Your task to perform on an android device: delete browsing data in the chrome app Image 0: 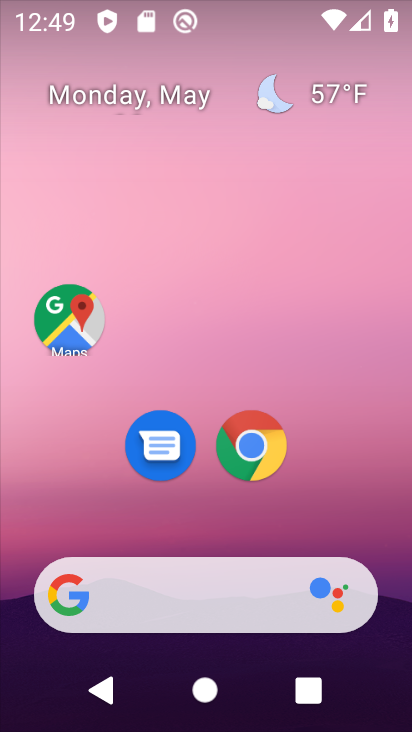
Step 0: drag from (398, 615) to (310, 145)
Your task to perform on an android device: delete browsing data in the chrome app Image 1: 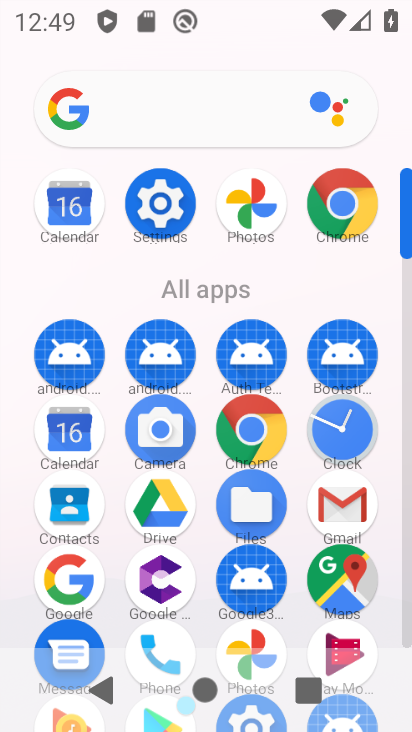
Step 1: click (270, 429)
Your task to perform on an android device: delete browsing data in the chrome app Image 2: 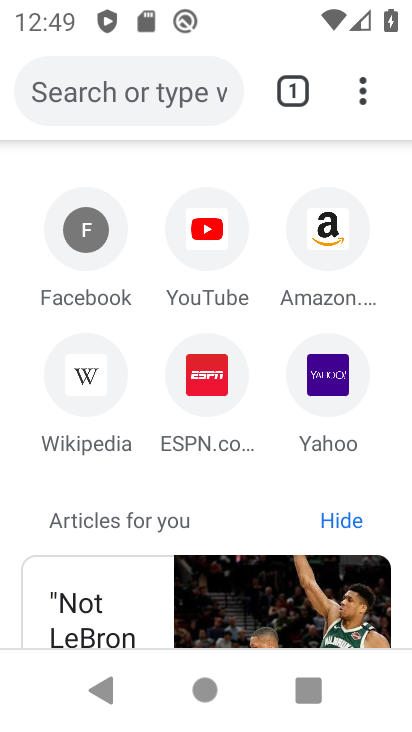
Step 2: click (366, 95)
Your task to perform on an android device: delete browsing data in the chrome app Image 3: 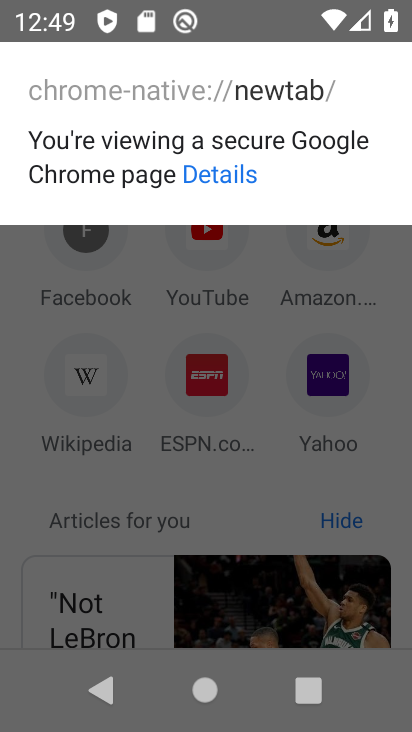
Step 3: click (355, 321)
Your task to perform on an android device: delete browsing data in the chrome app Image 4: 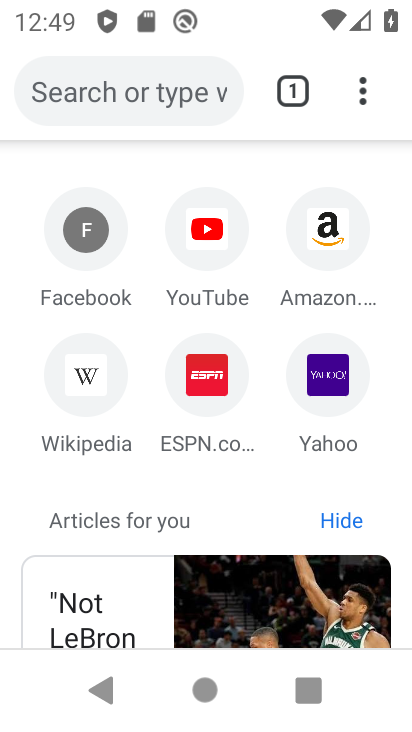
Step 4: click (361, 83)
Your task to perform on an android device: delete browsing data in the chrome app Image 5: 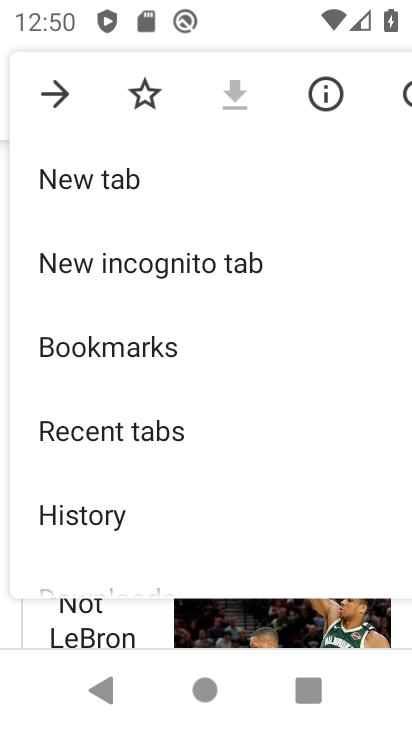
Step 5: click (150, 527)
Your task to perform on an android device: delete browsing data in the chrome app Image 6: 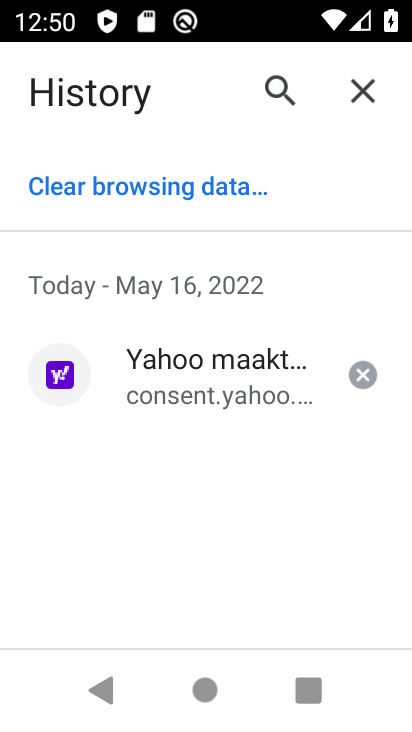
Step 6: click (181, 187)
Your task to perform on an android device: delete browsing data in the chrome app Image 7: 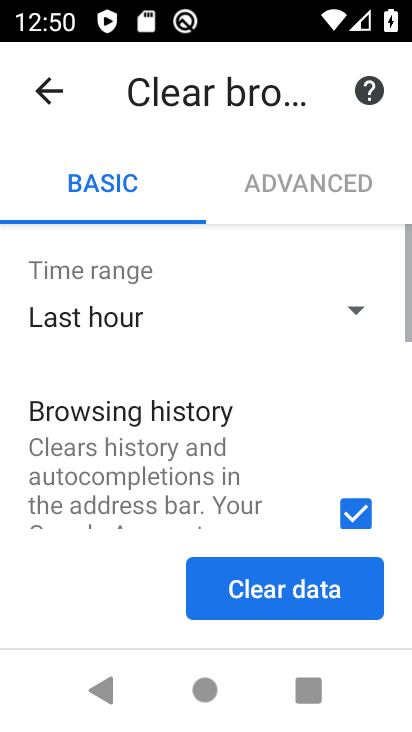
Step 7: click (292, 583)
Your task to perform on an android device: delete browsing data in the chrome app Image 8: 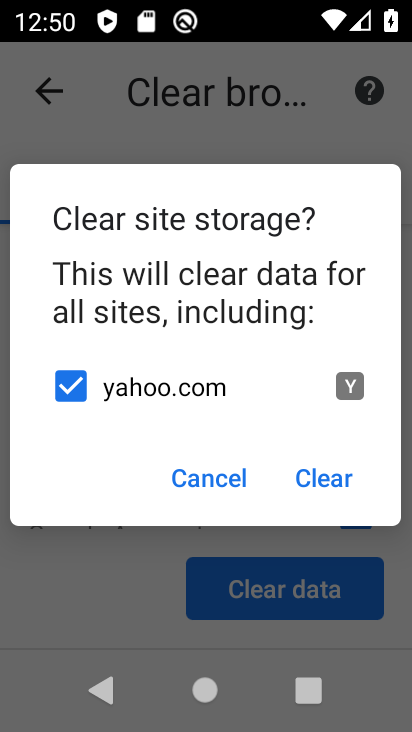
Step 8: click (339, 480)
Your task to perform on an android device: delete browsing data in the chrome app Image 9: 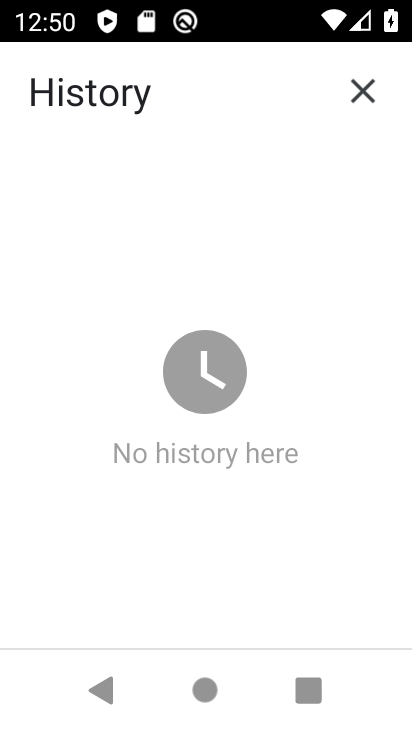
Step 9: task complete